Your task to perform on an android device: Turn on the flashlight Image 0: 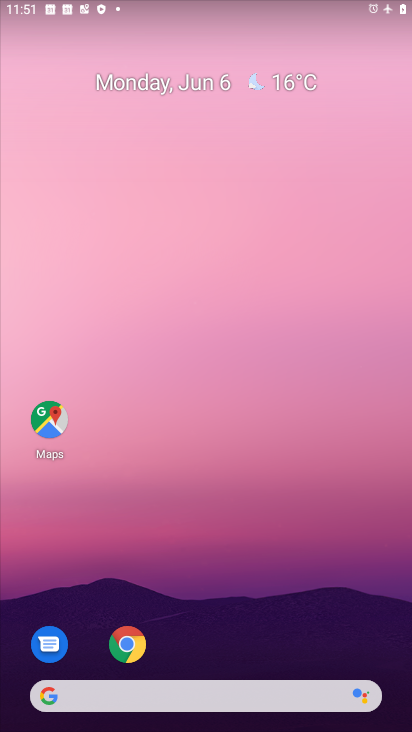
Step 0: drag from (260, 537) to (296, 54)
Your task to perform on an android device: Turn on the flashlight Image 1: 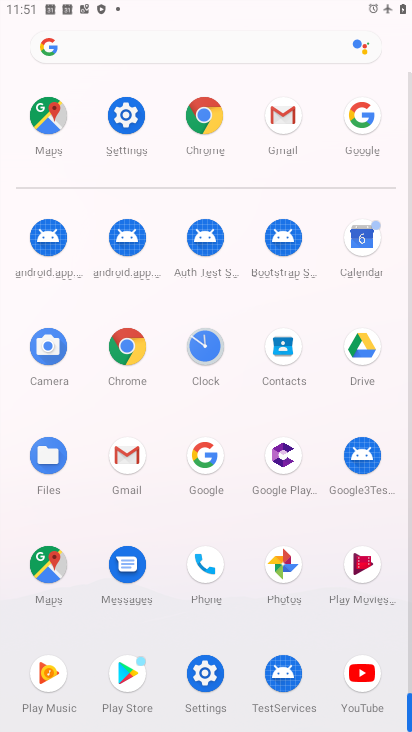
Step 1: task complete